Your task to perform on an android device: open app "Nova Launcher" Image 0: 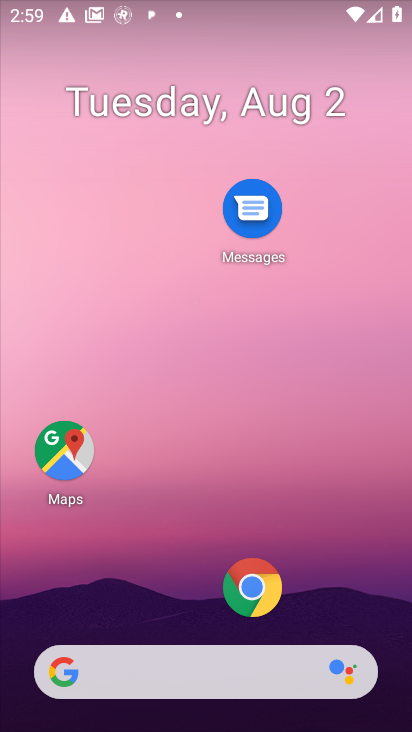
Step 0: drag from (185, 606) to (180, 253)
Your task to perform on an android device: open app "Nova Launcher" Image 1: 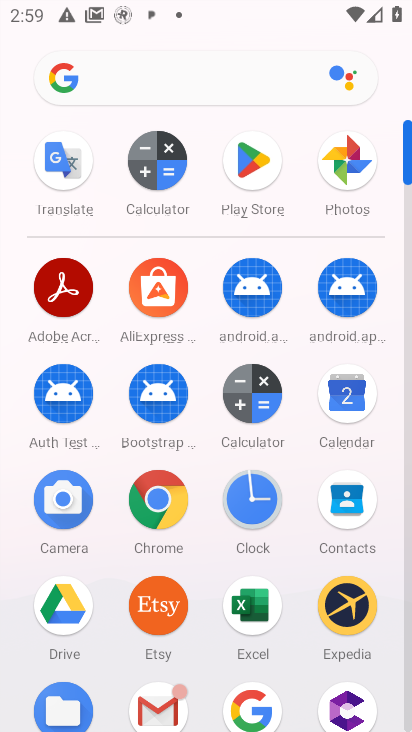
Step 1: click (246, 177)
Your task to perform on an android device: open app "Nova Launcher" Image 2: 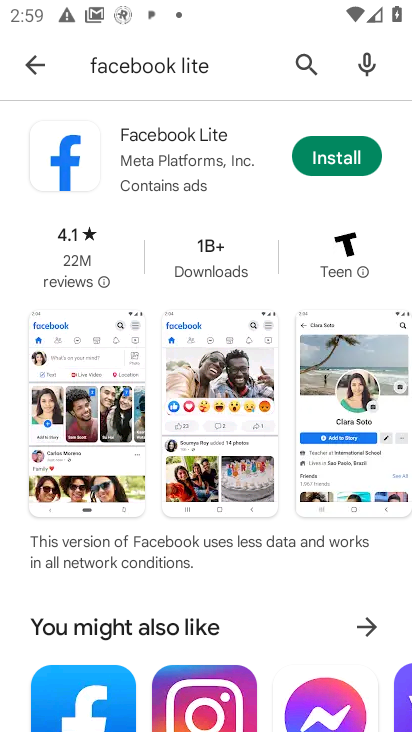
Step 2: click (283, 59)
Your task to perform on an android device: open app "Nova Launcher" Image 3: 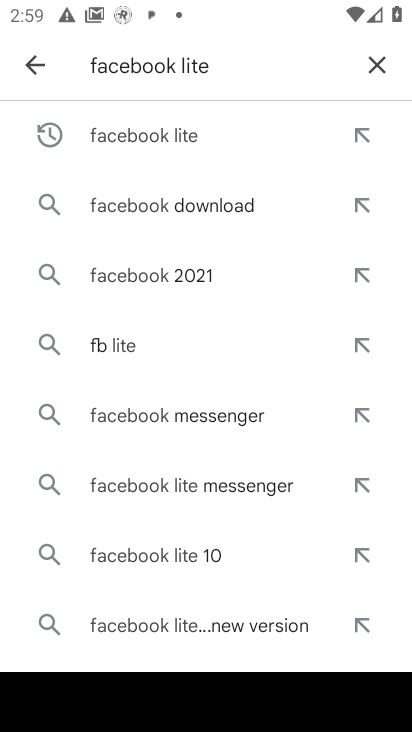
Step 3: click (380, 53)
Your task to perform on an android device: open app "Nova Launcher" Image 4: 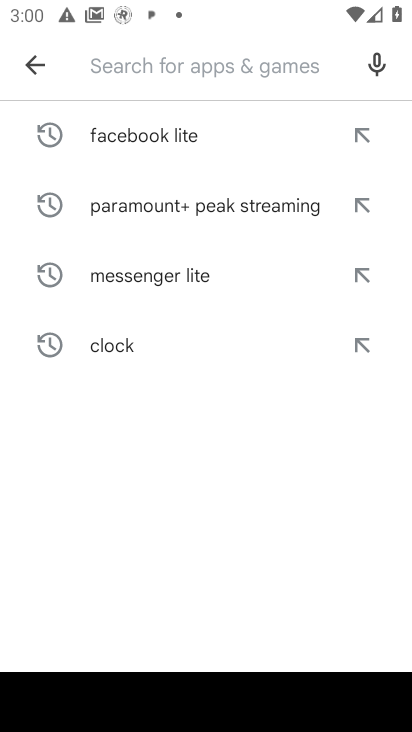
Step 4: type "Nova Launcher"
Your task to perform on an android device: open app "Nova Launcher" Image 5: 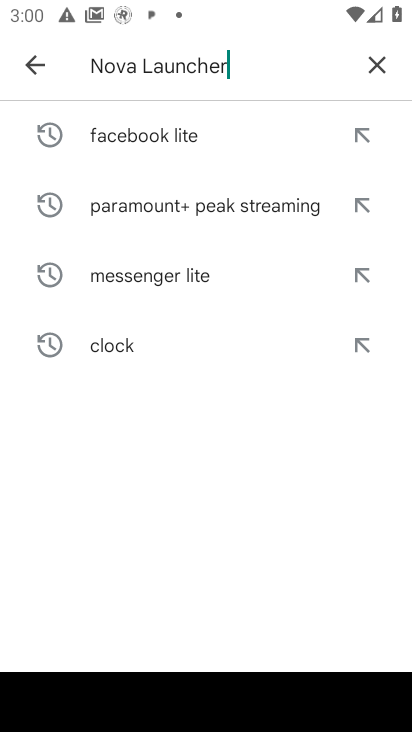
Step 5: type ""
Your task to perform on an android device: open app "Nova Launcher" Image 6: 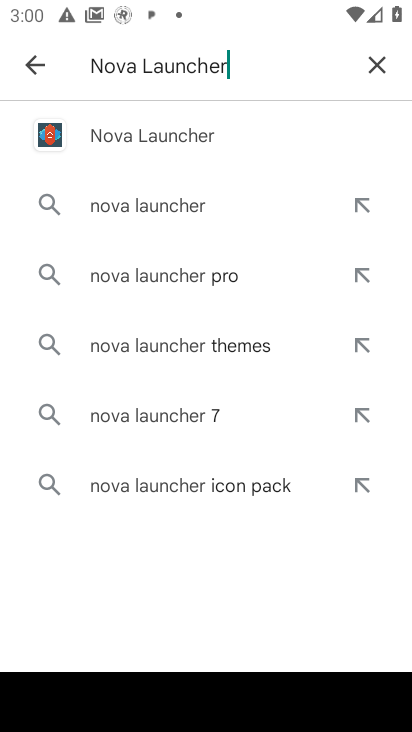
Step 6: click (109, 139)
Your task to perform on an android device: open app "Nova Launcher" Image 7: 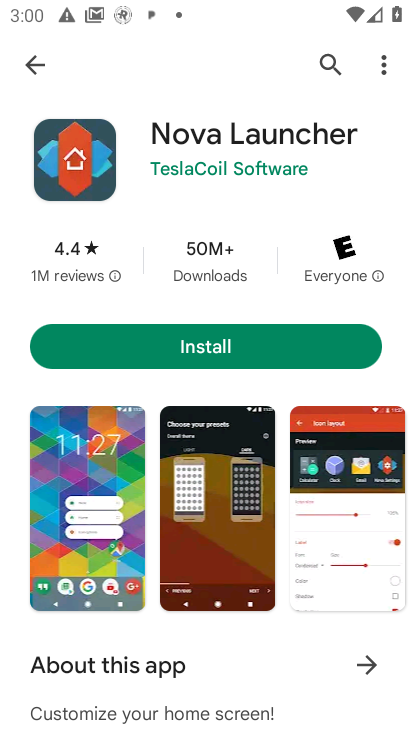
Step 7: task complete